Your task to perform on an android device: refresh tabs in the chrome app Image 0: 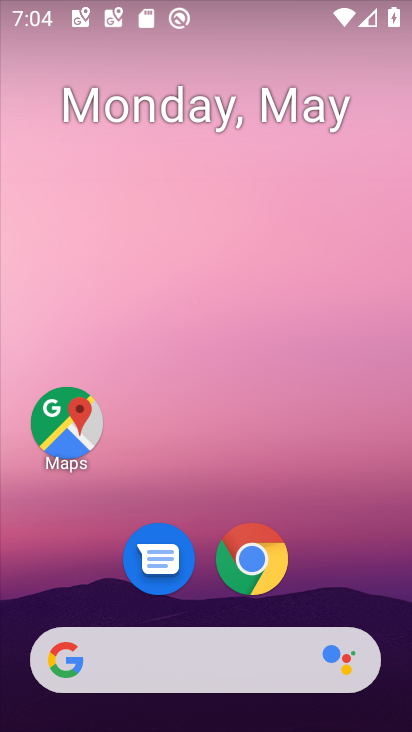
Step 0: drag from (401, 623) to (353, 92)
Your task to perform on an android device: refresh tabs in the chrome app Image 1: 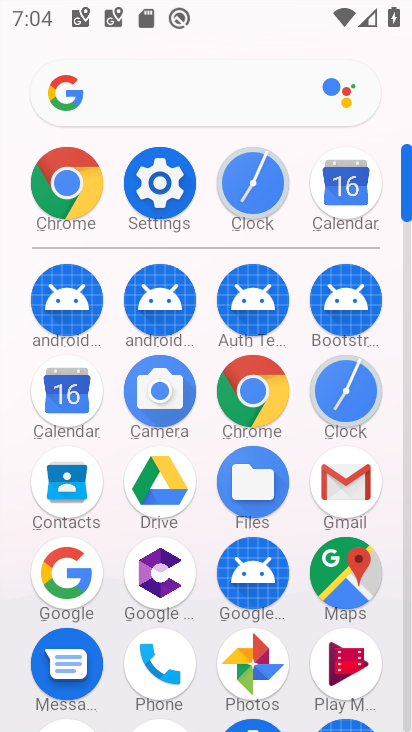
Step 1: click (239, 405)
Your task to perform on an android device: refresh tabs in the chrome app Image 2: 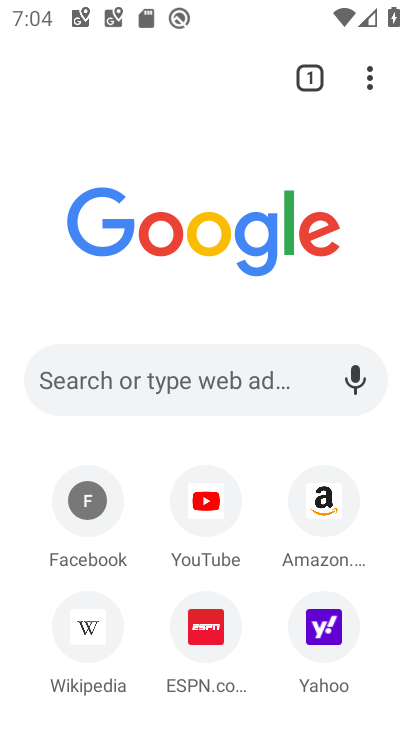
Step 2: click (367, 75)
Your task to perform on an android device: refresh tabs in the chrome app Image 3: 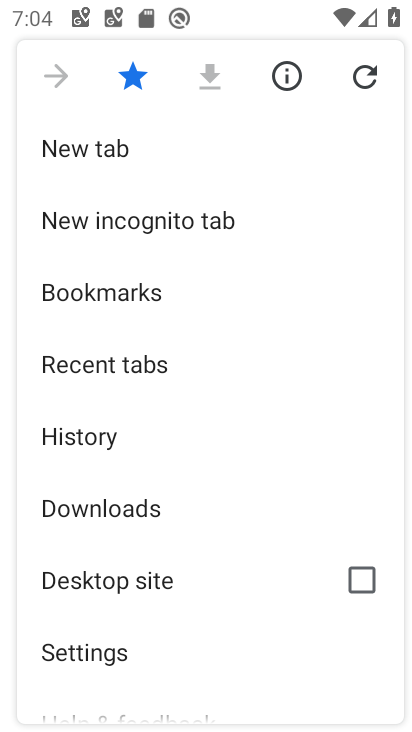
Step 3: click (367, 75)
Your task to perform on an android device: refresh tabs in the chrome app Image 4: 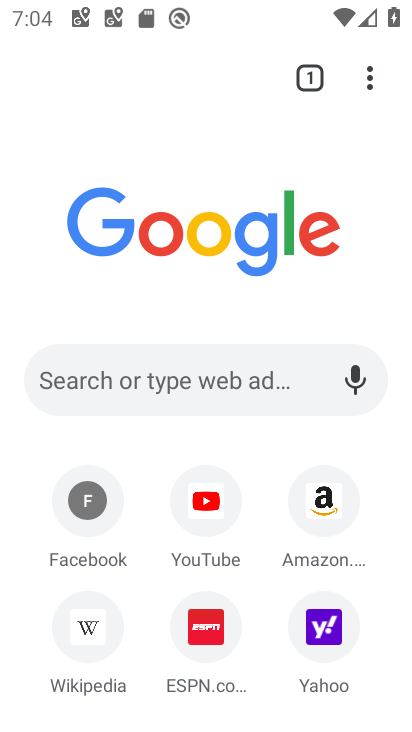
Step 4: task complete